Your task to perform on an android device: What's on my calendar today? Image 0: 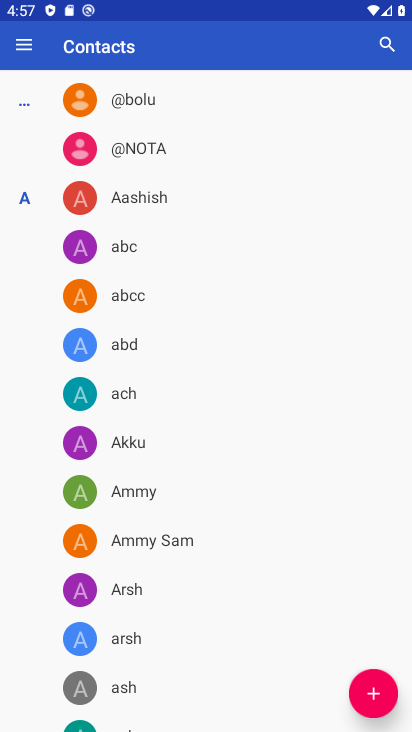
Step 0: press home button
Your task to perform on an android device: What's on my calendar today? Image 1: 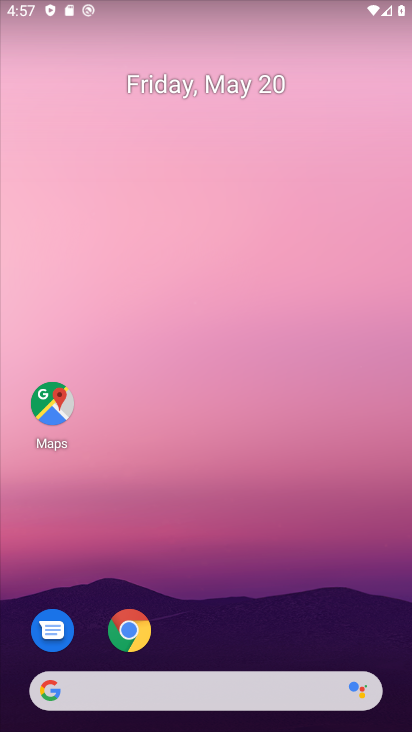
Step 1: drag from (227, 560) to (179, 68)
Your task to perform on an android device: What's on my calendar today? Image 2: 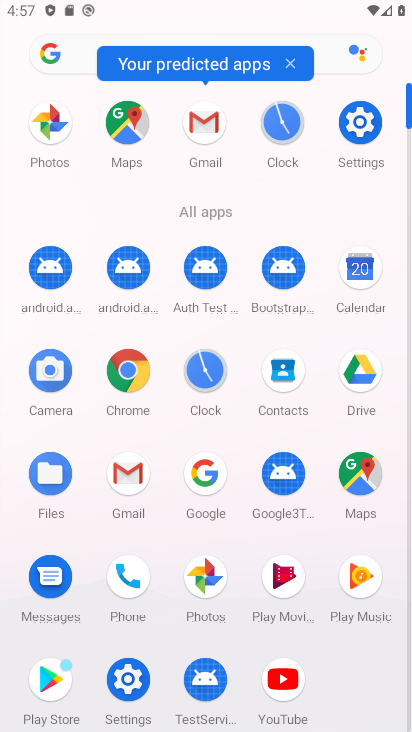
Step 2: click (372, 261)
Your task to perform on an android device: What's on my calendar today? Image 3: 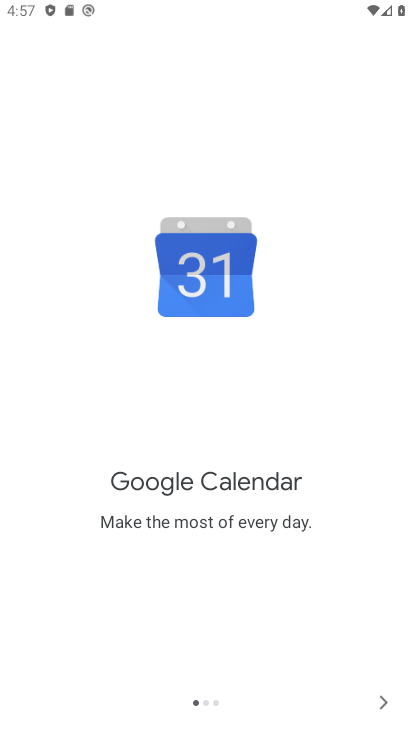
Step 3: click (374, 700)
Your task to perform on an android device: What's on my calendar today? Image 4: 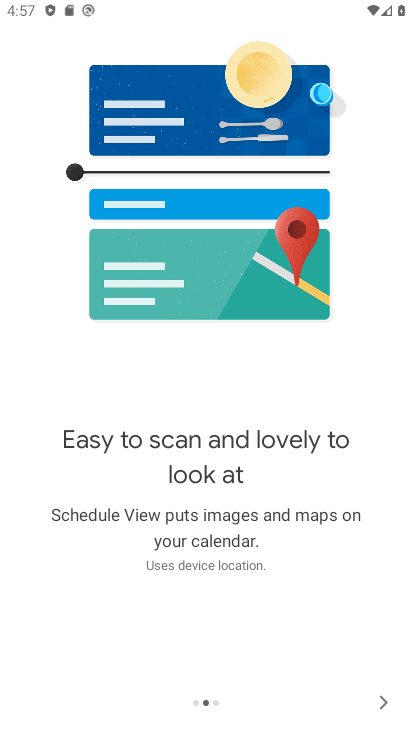
Step 4: click (374, 700)
Your task to perform on an android device: What's on my calendar today? Image 5: 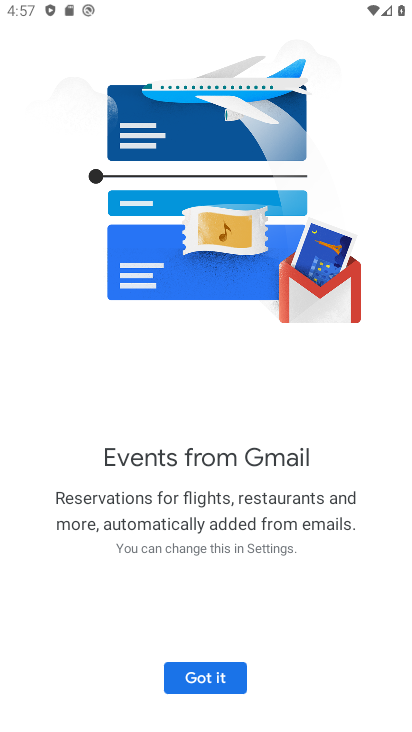
Step 5: click (236, 678)
Your task to perform on an android device: What's on my calendar today? Image 6: 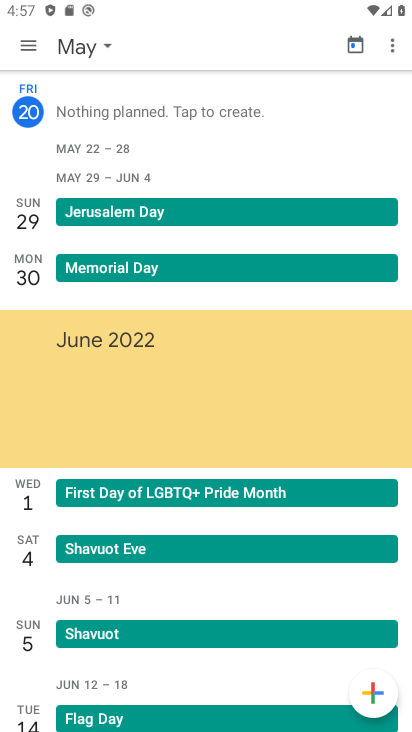
Step 6: task complete